Your task to perform on an android device: turn pop-ups on in chrome Image 0: 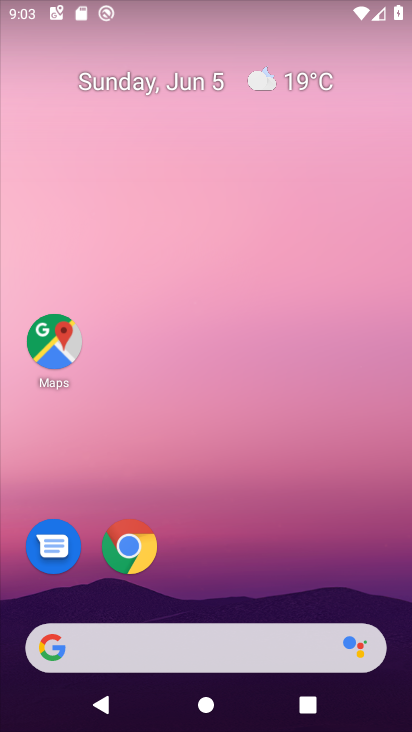
Step 0: drag from (292, 438) to (299, 93)
Your task to perform on an android device: turn pop-ups on in chrome Image 1: 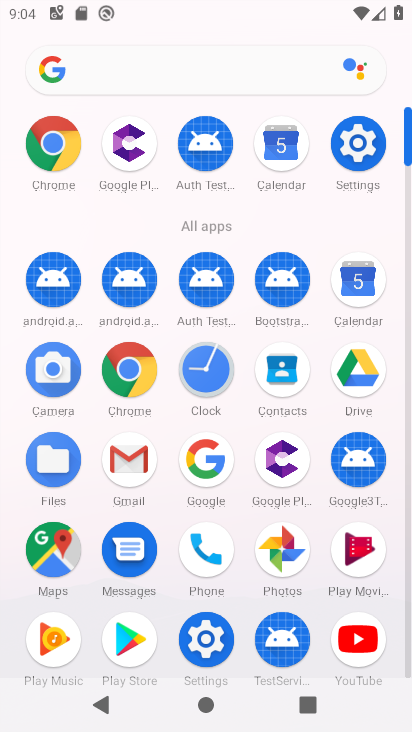
Step 1: click (47, 122)
Your task to perform on an android device: turn pop-ups on in chrome Image 2: 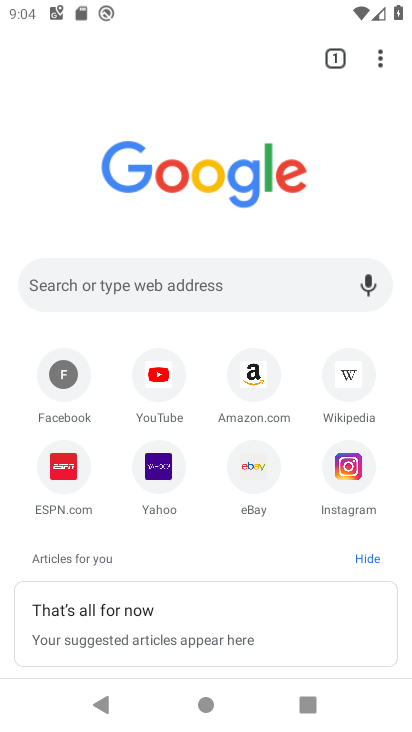
Step 2: drag from (378, 44) to (300, 484)
Your task to perform on an android device: turn pop-ups on in chrome Image 3: 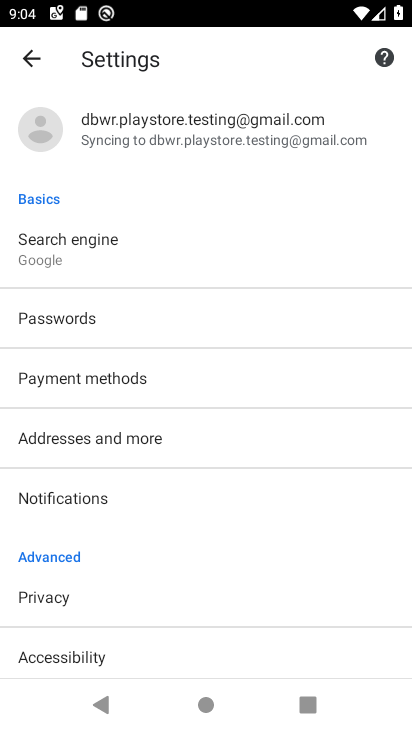
Step 3: drag from (286, 513) to (293, 135)
Your task to perform on an android device: turn pop-ups on in chrome Image 4: 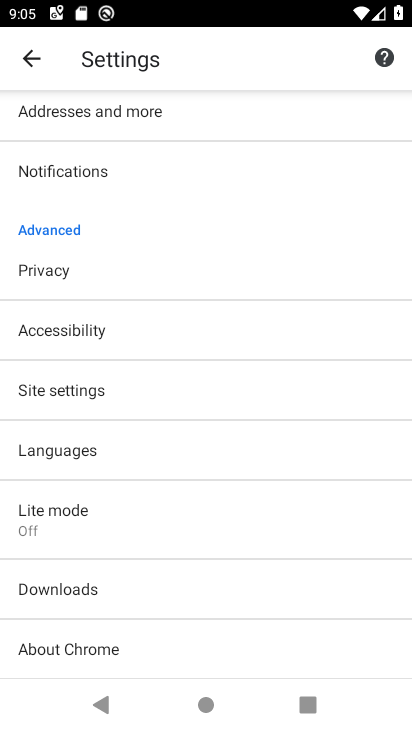
Step 4: click (155, 397)
Your task to perform on an android device: turn pop-ups on in chrome Image 5: 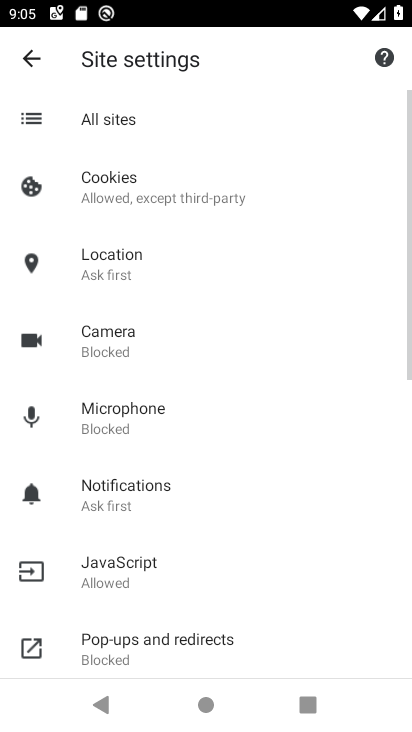
Step 5: drag from (122, 541) to (140, 328)
Your task to perform on an android device: turn pop-ups on in chrome Image 6: 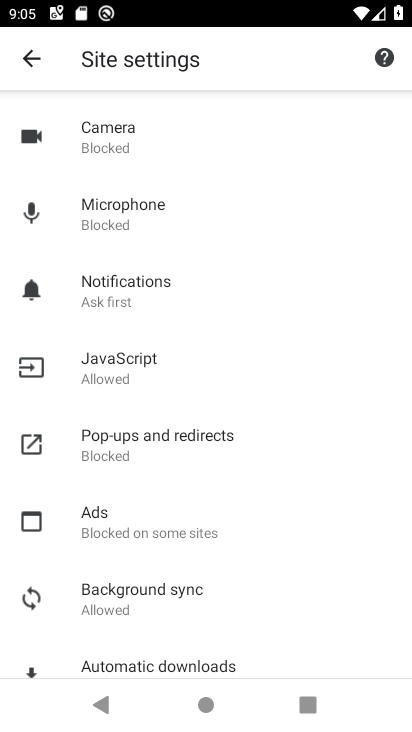
Step 6: click (132, 442)
Your task to perform on an android device: turn pop-ups on in chrome Image 7: 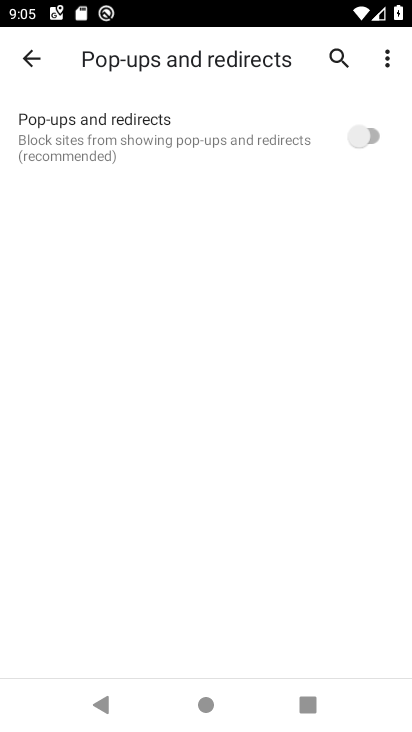
Step 7: click (169, 146)
Your task to perform on an android device: turn pop-ups on in chrome Image 8: 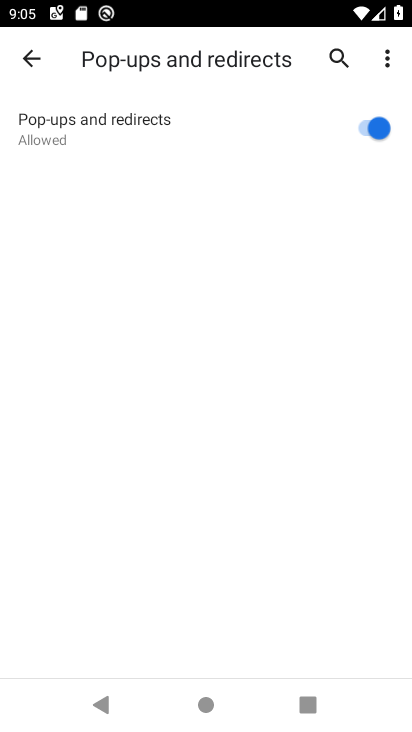
Step 8: task complete